Your task to perform on an android device: turn vacation reply on in the gmail app Image 0: 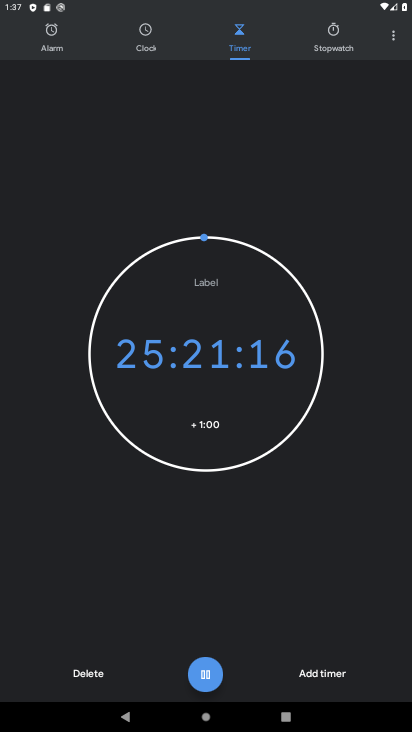
Step 0: press home button
Your task to perform on an android device: turn vacation reply on in the gmail app Image 1: 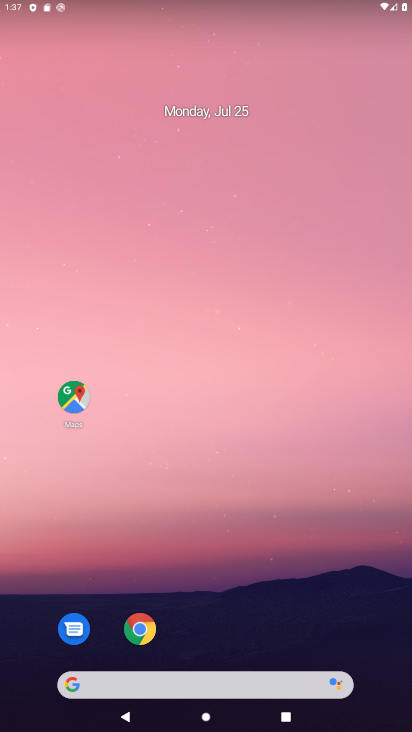
Step 1: drag from (302, 638) to (300, 0)
Your task to perform on an android device: turn vacation reply on in the gmail app Image 2: 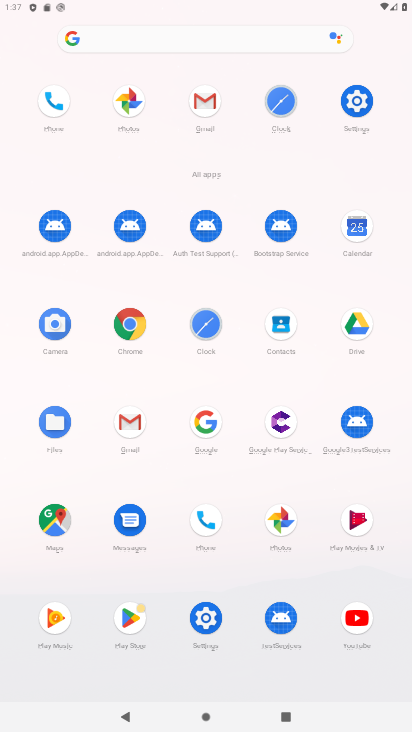
Step 2: click (197, 126)
Your task to perform on an android device: turn vacation reply on in the gmail app Image 3: 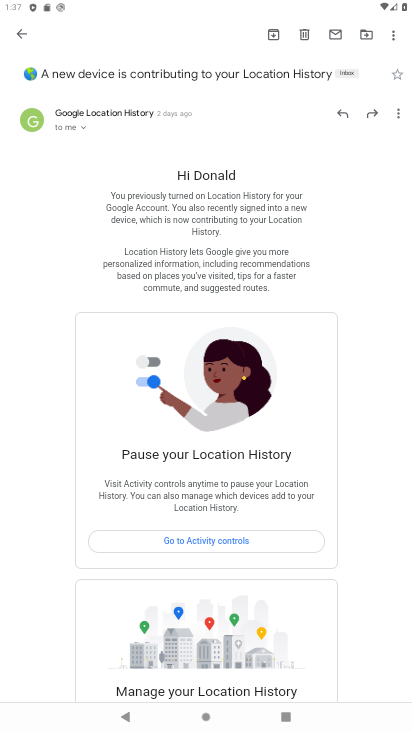
Step 3: click (16, 34)
Your task to perform on an android device: turn vacation reply on in the gmail app Image 4: 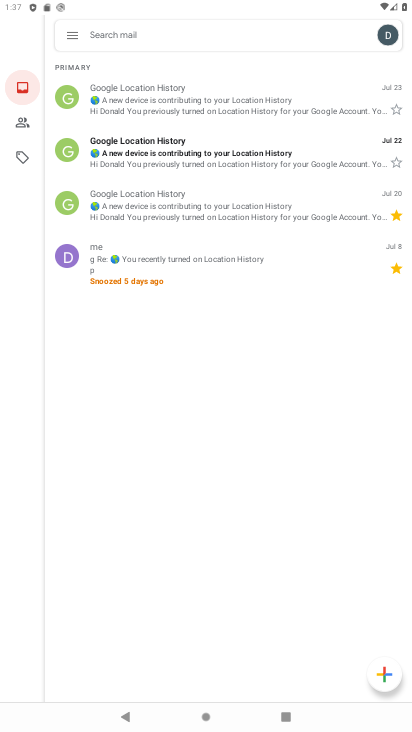
Step 4: click (68, 38)
Your task to perform on an android device: turn vacation reply on in the gmail app Image 5: 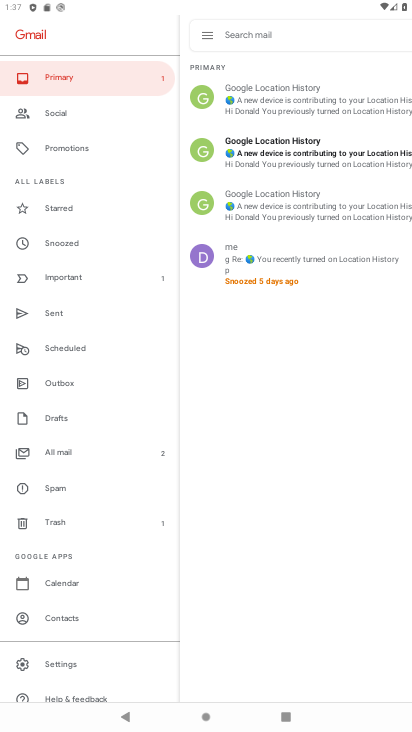
Step 5: click (49, 668)
Your task to perform on an android device: turn vacation reply on in the gmail app Image 6: 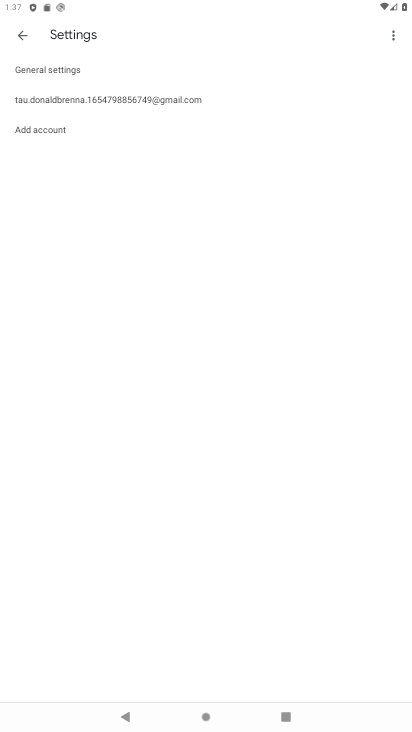
Step 6: click (121, 102)
Your task to perform on an android device: turn vacation reply on in the gmail app Image 7: 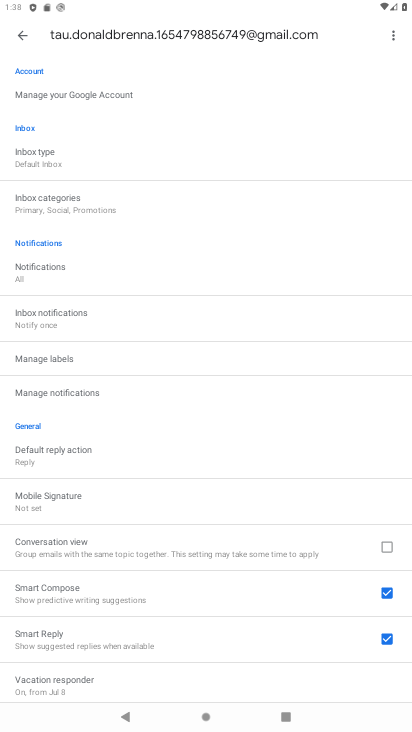
Step 7: drag from (125, 667) to (212, 311)
Your task to perform on an android device: turn vacation reply on in the gmail app Image 8: 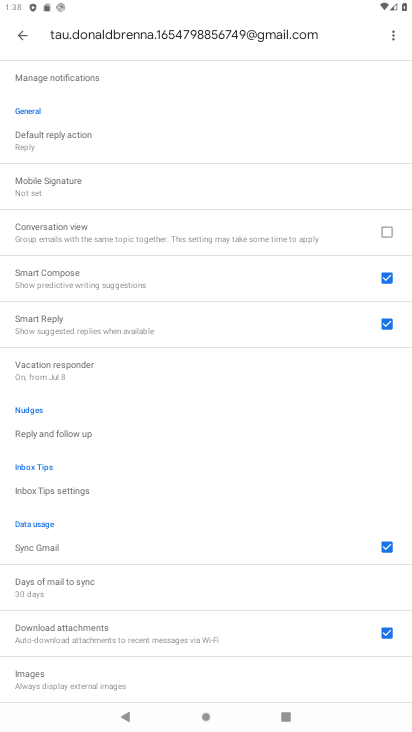
Step 8: click (60, 376)
Your task to perform on an android device: turn vacation reply on in the gmail app Image 9: 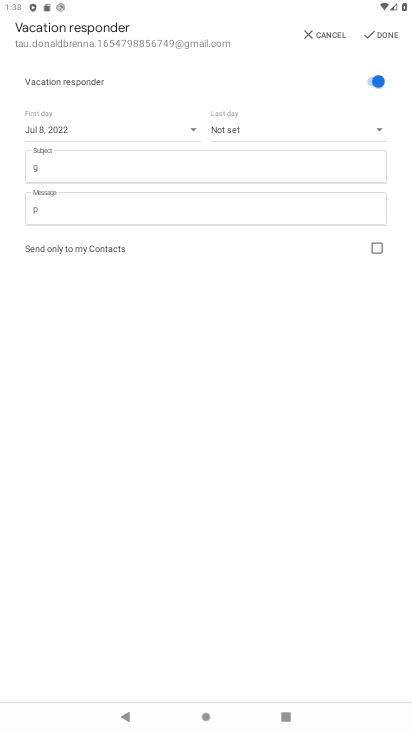
Step 9: task complete